Your task to perform on an android device: search for starred emails in the gmail app Image 0: 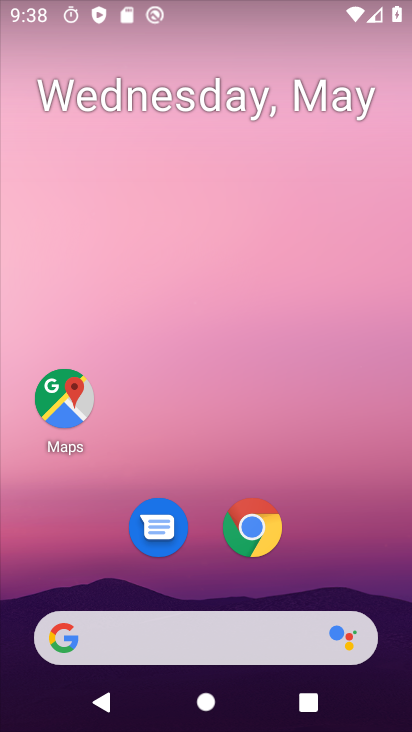
Step 0: drag from (336, 568) to (193, 103)
Your task to perform on an android device: search for starred emails in the gmail app Image 1: 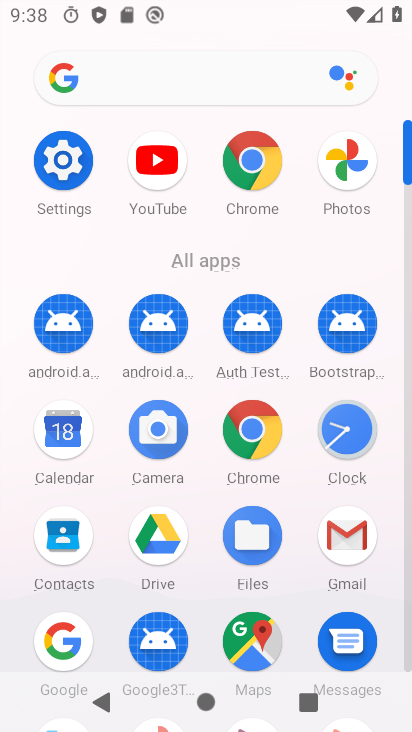
Step 1: click (338, 538)
Your task to perform on an android device: search for starred emails in the gmail app Image 2: 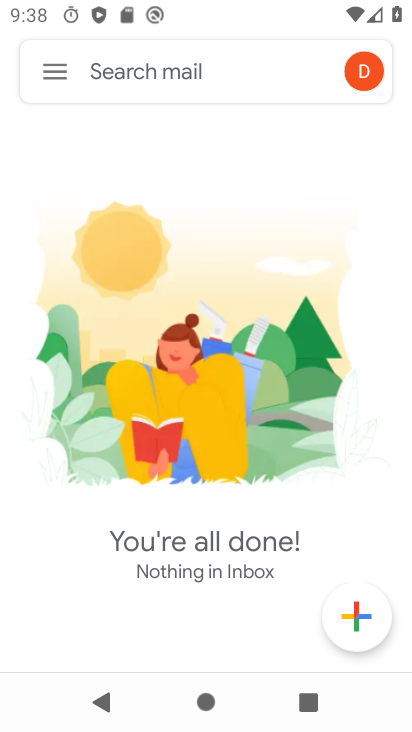
Step 2: click (58, 71)
Your task to perform on an android device: search for starred emails in the gmail app Image 3: 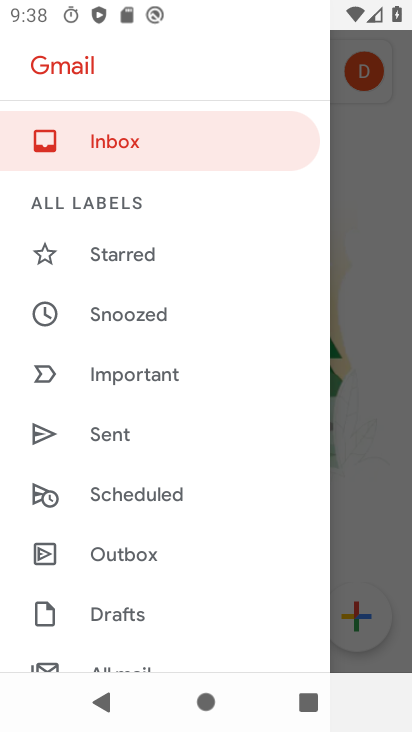
Step 3: drag from (259, 631) to (301, 111)
Your task to perform on an android device: search for starred emails in the gmail app Image 4: 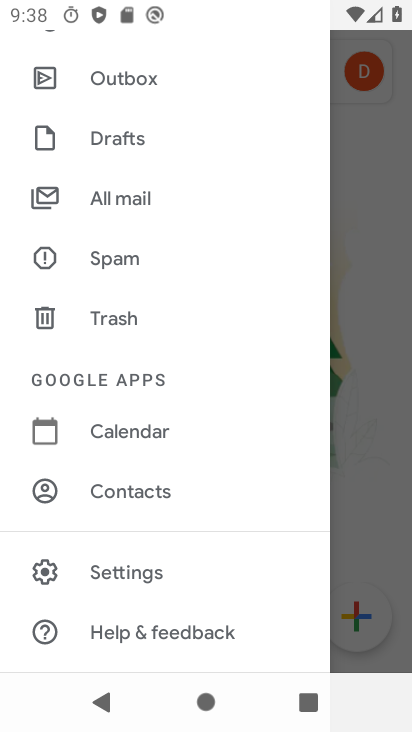
Step 4: drag from (183, 137) to (235, 572)
Your task to perform on an android device: search for starred emails in the gmail app Image 5: 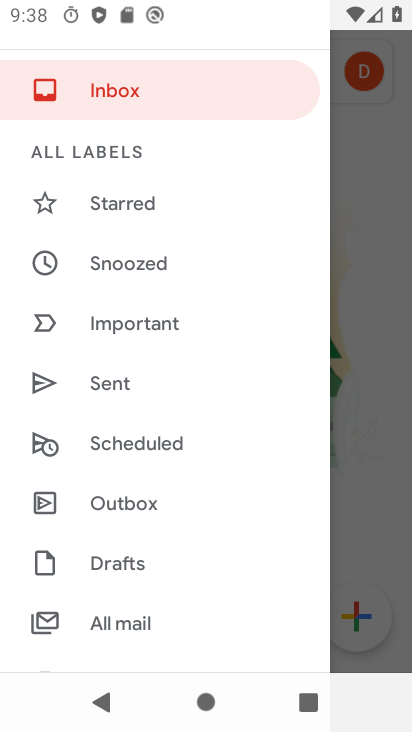
Step 5: click (109, 202)
Your task to perform on an android device: search for starred emails in the gmail app Image 6: 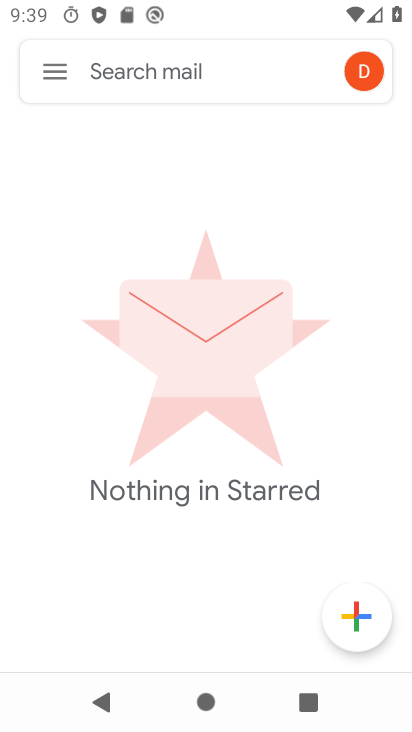
Step 6: task complete